Your task to perform on an android device: turn on javascript in the chrome app Image 0: 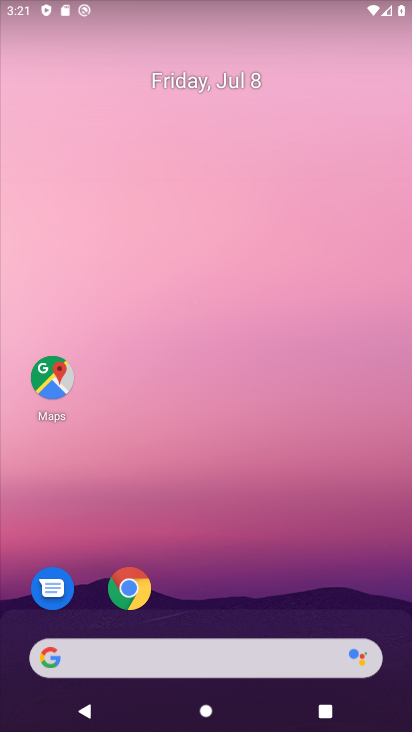
Step 0: click (150, 607)
Your task to perform on an android device: turn on javascript in the chrome app Image 1: 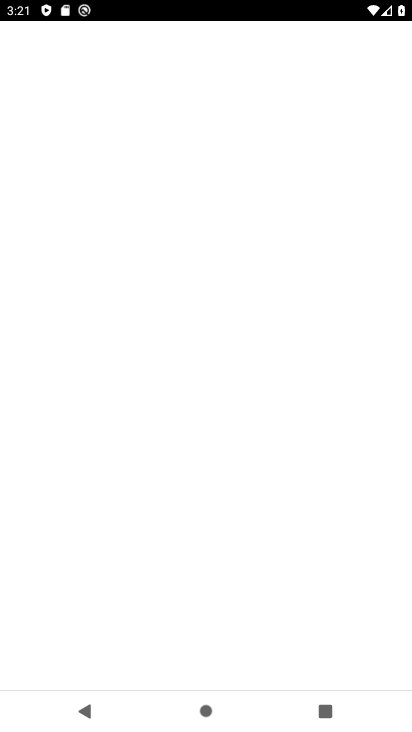
Step 1: click (152, 593)
Your task to perform on an android device: turn on javascript in the chrome app Image 2: 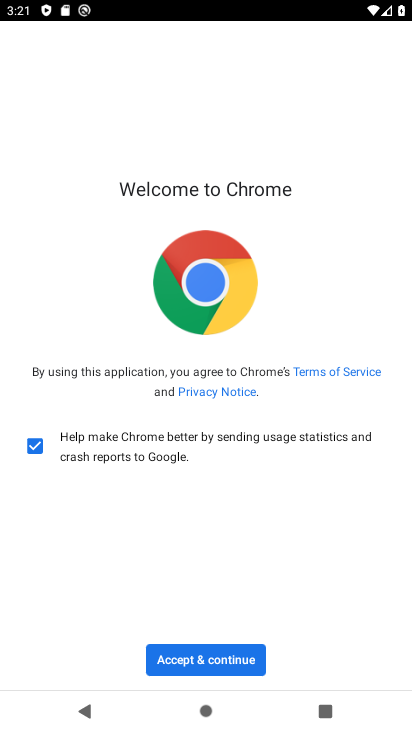
Step 2: click (190, 660)
Your task to perform on an android device: turn on javascript in the chrome app Image 3: 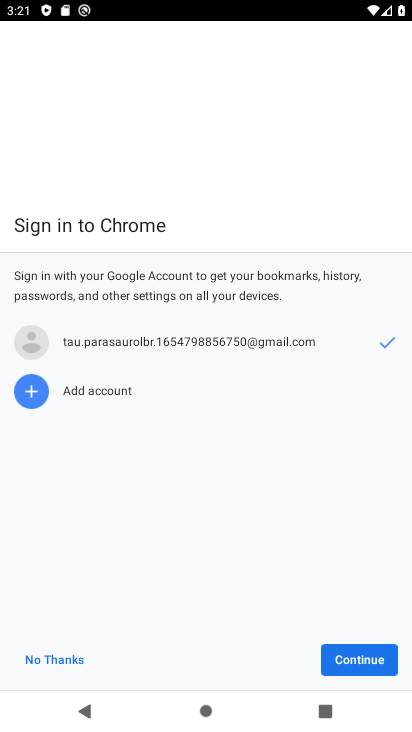
Step 3: click (370, 647)
Your task to perform on an android device: turn on javascript in the chrome app Image 4: 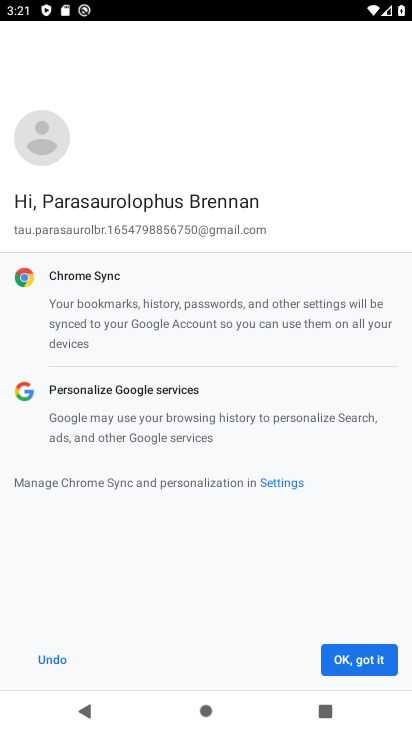
Step 4: click (364, 668)
Your task to perform on an android device: turn on javascript in the chrome app Image 5: 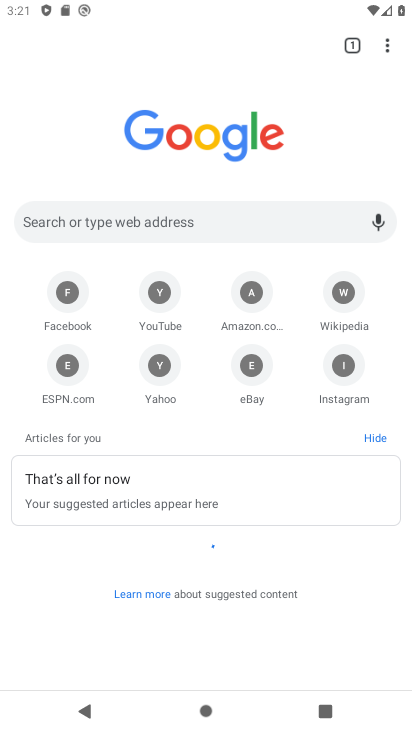
Step 5: drag from (388, 35) to (321, 390)
Your task to perform on an android device: turn on javascript in the chrome app Image 6: 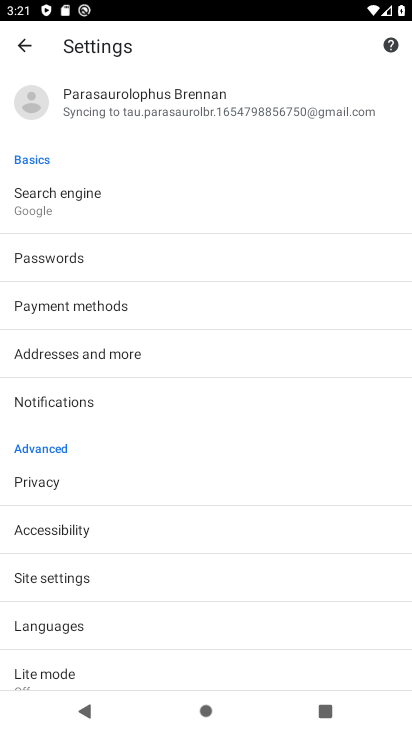
Step 6: click (157, 586)
Your task to perform on an android device: turn on javascript in the chrome app Image 7: 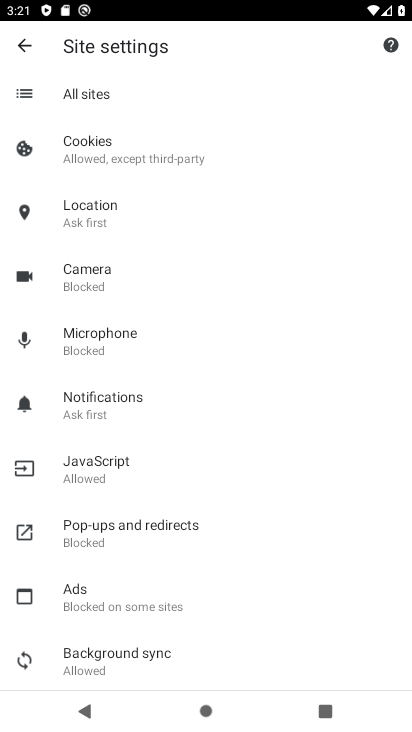
Step 7: click (126, 462)
Your task to perform on an android device: turn on javascript in the chrome app Image 8: 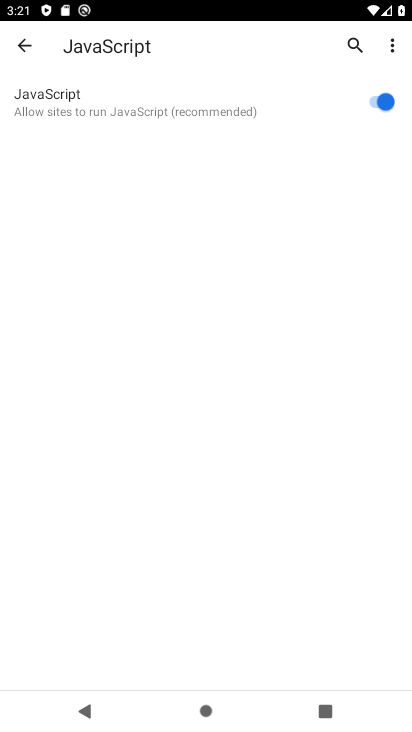
Step 8: task complete